Your task to perform on an android device: Open Google Chrome Image 0: 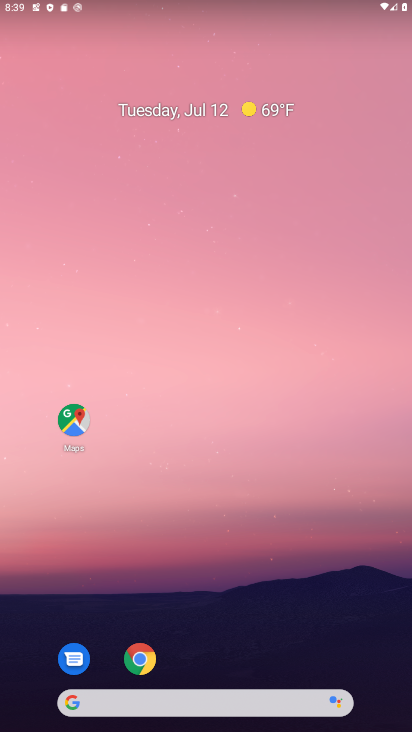
Step 0: click (140, 660)
Your task to perform on an android device: Open Google Chrome Image 1: 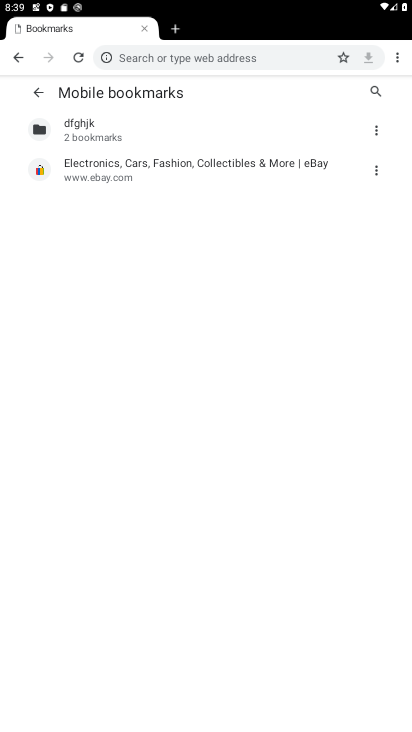
Step 1: task complete